Your task to perform on an android device: turn vacation reply on in the gmail app Image 0: 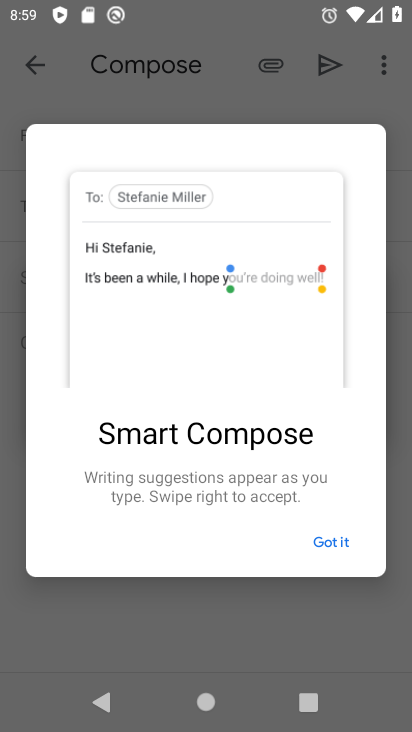
Step 0: press home button
Your task to perform on an android device: turn vacation reply on in the gmail app Image 1: 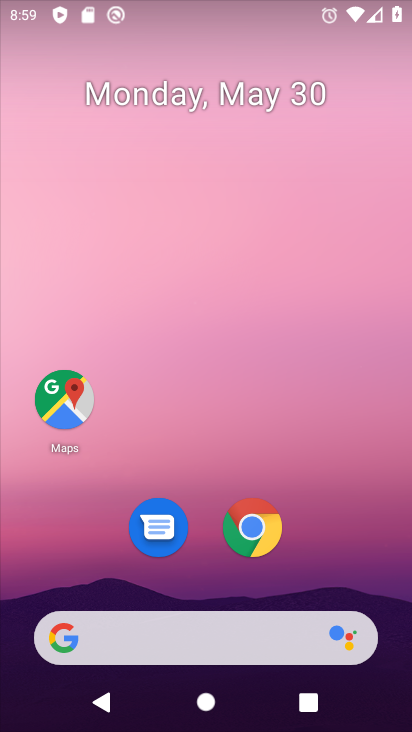
Step 1: drag from (333, 668) to (287, 71)
Your task to perform on an android device: turn vacation reply on in the gmail app Image 2: 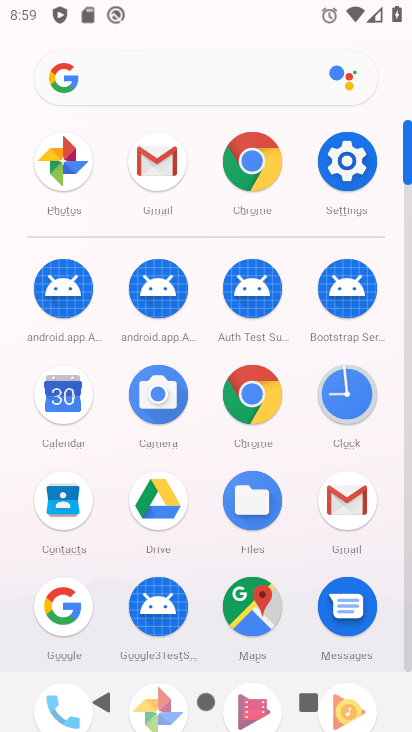
Step 2: click (364, 498)
Your task to perform on an android device: turn vacation reply on in the gmail app Image 3: 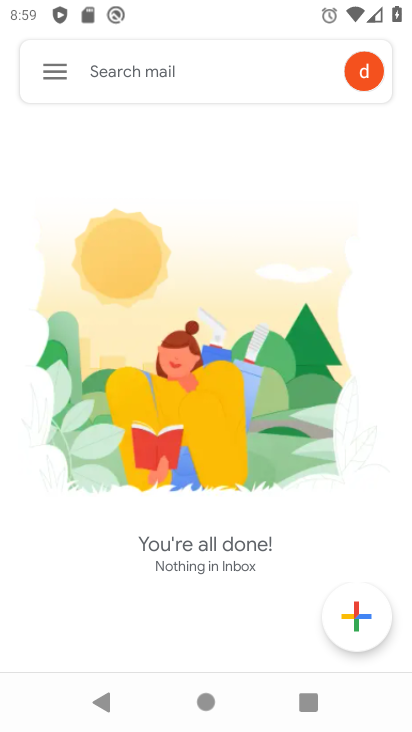
Step 3: click (73, 63)
Your task to perform on an android device: turn vacation reply on in the gmail app Image 4: 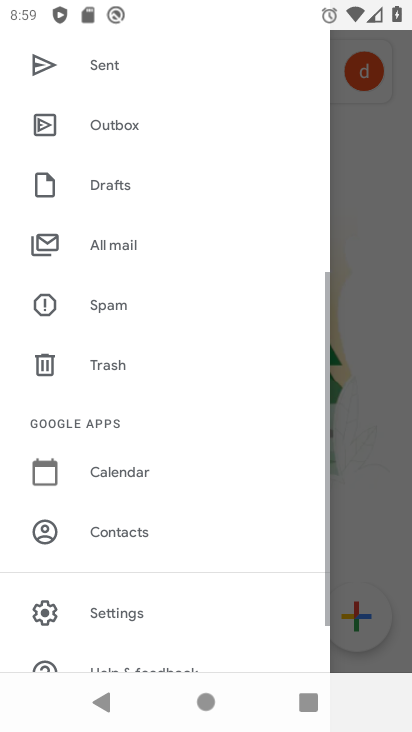
Step 4: click (183, 612)
Your task to perform on an android device: turn vacation reply on in the gmail app Image 5: 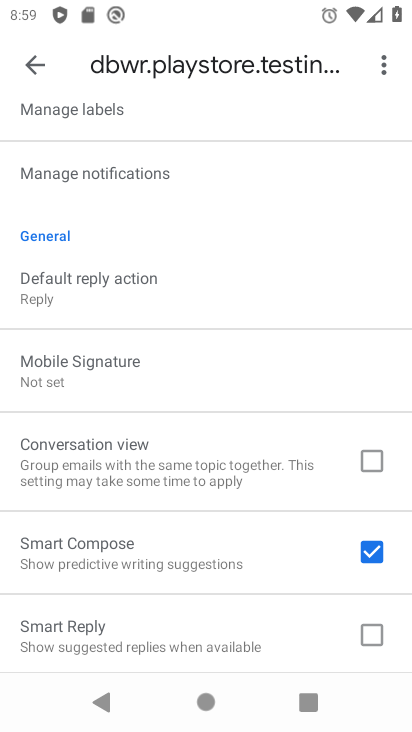
Step 5: drag from (183, 609) to (175, 377)
Your task to perform on an android device: turn vacation reply on in the gmail app Image 6: 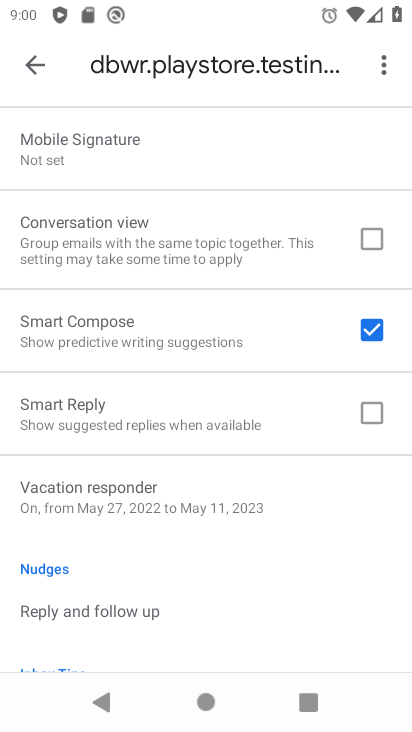
Step 6: click (128, 492)
Your task to perform on an android device: turn vacation reply on in the gmail app Image 7: 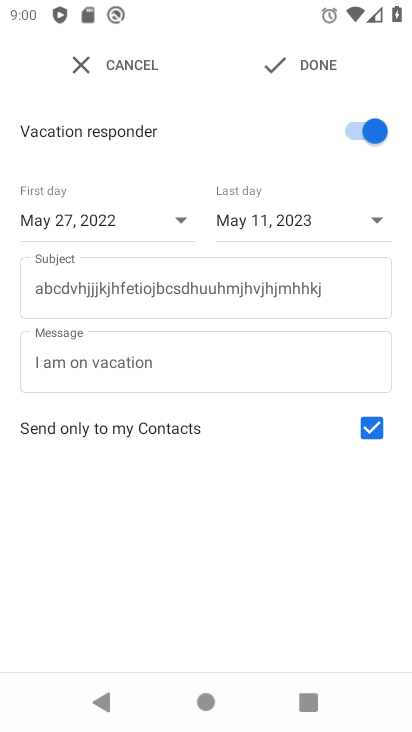
Step 7: task complete